Your task to perform on an android device: turn off location Image 0: 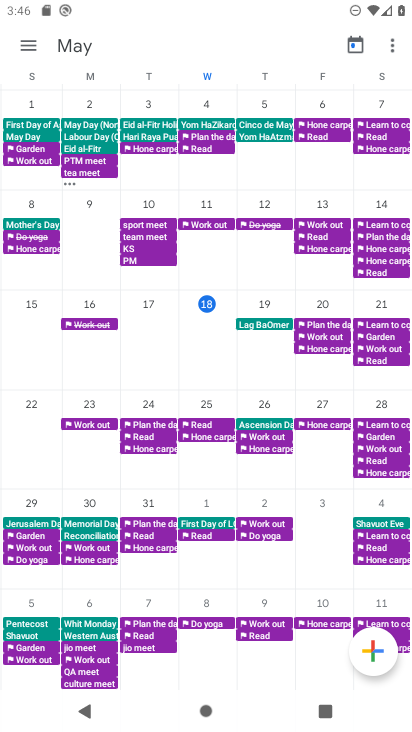
Step 0: press home button
Your task to perform on an android device: turn off location Image 1: 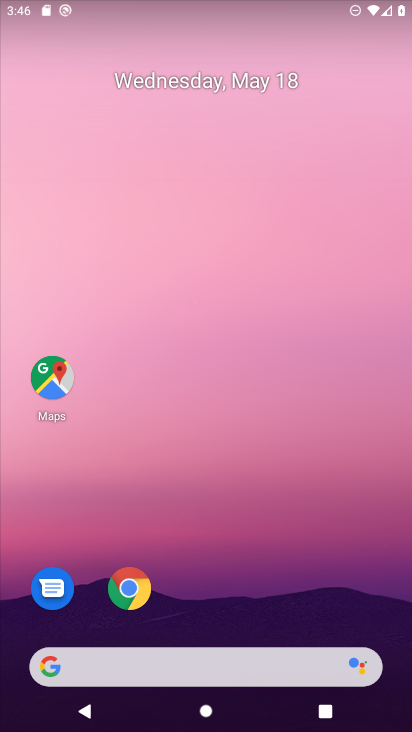
Step 1: drag from (216, 593) to (194, 112)
Your task to perform on an android device: turn off location Image 2: 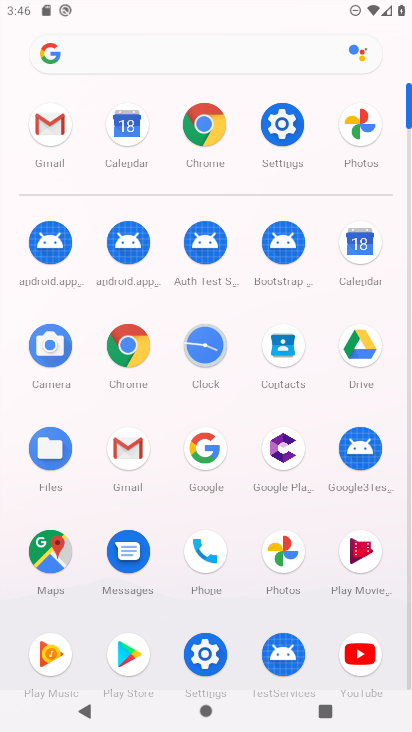
Step 2: click (269, 110)
Your task to perform on an android device: turn off location Image 3: 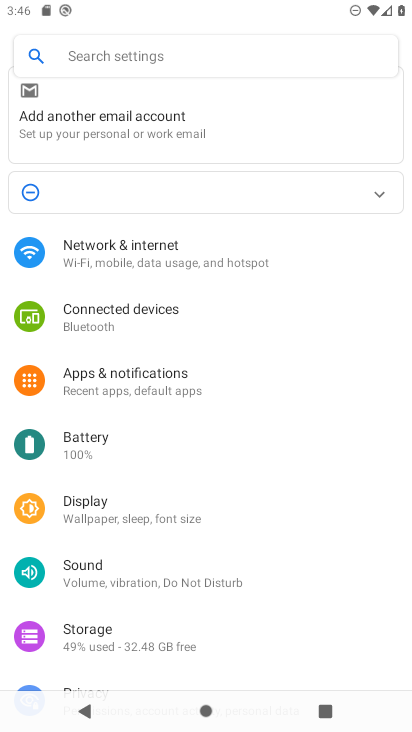
Step 3: drag from (138, 613) to (189, 386)
Your task to perform on an android device: turn off location Image 4: 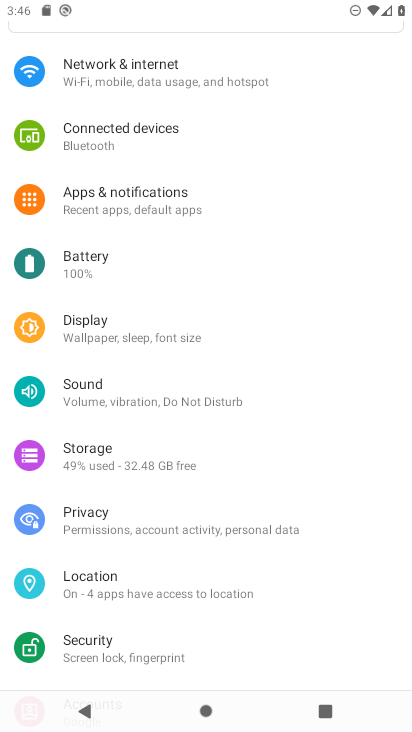
Step 4: click (186, 588)
Your task to perform on an android device: turn off location Image 5: 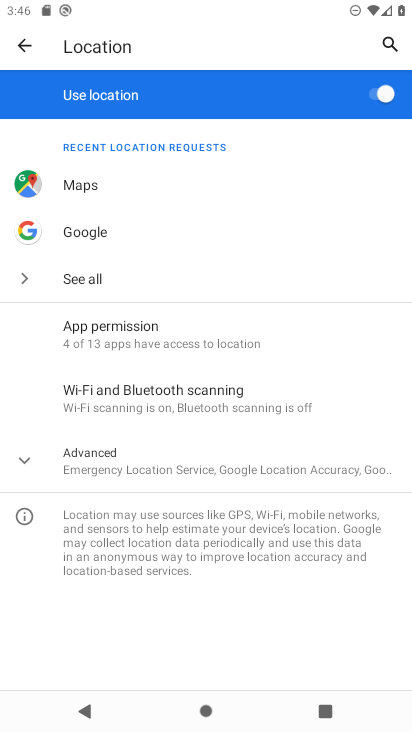
Step 5: click (361, 103)
Your task to perform on an android device: turn off location Image 6: 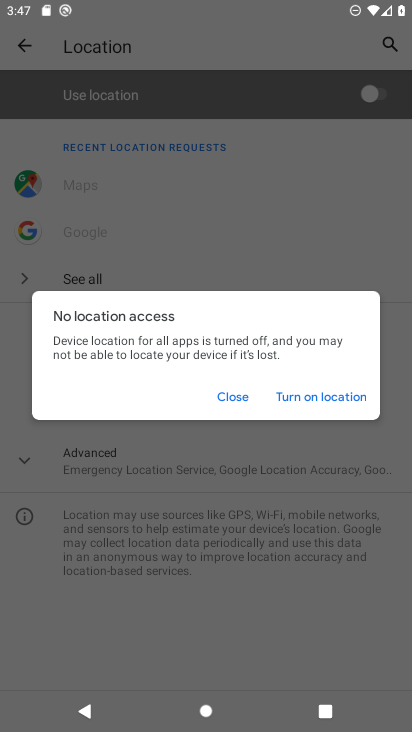
Step 6: press home button
Your task to perform on an android device: turn off location Image 7: 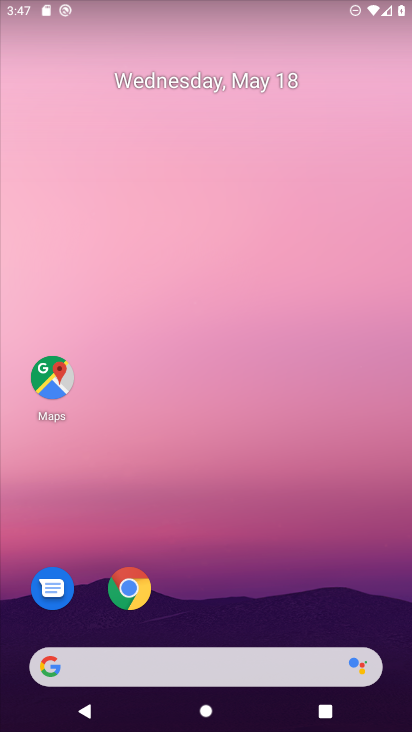
Step 7: drag from (284, 619) to (305, 168)
Your task to perform on an android device: turn off location Image 8: 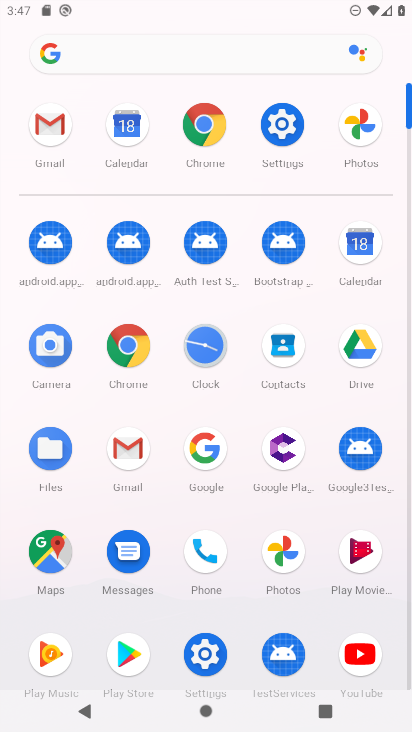
Step 8: click (281, 161)
Your task to perform on an android device: turn off location Image 9: 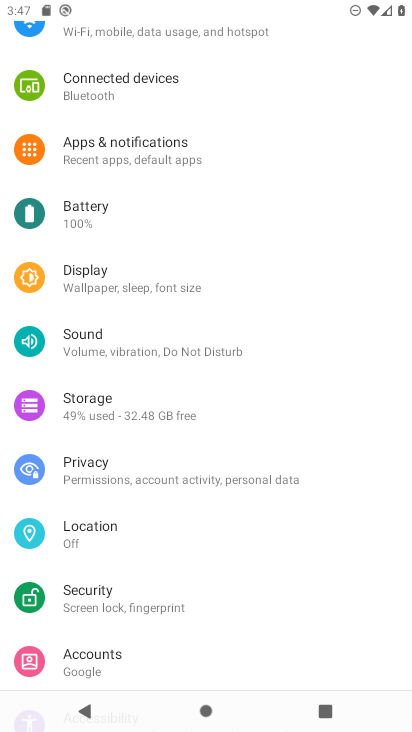
Step 9: task complete